Your task to perform on an android device: Open wifi settings Image 0: 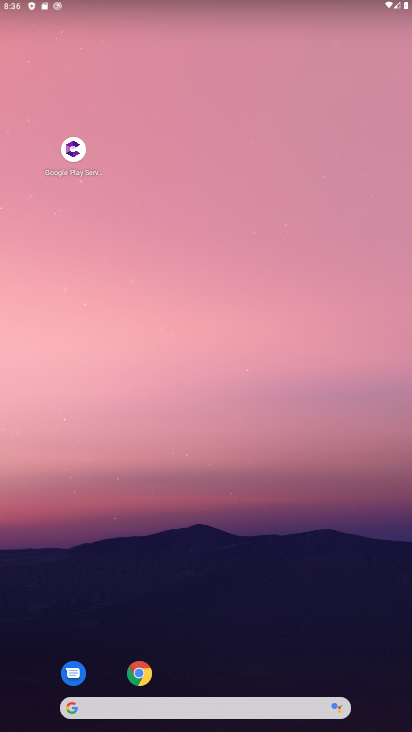
Step 0: drag from (357, 4) to (345, 382)
Your task to perform on an android device: Open wifi settings Image 1: 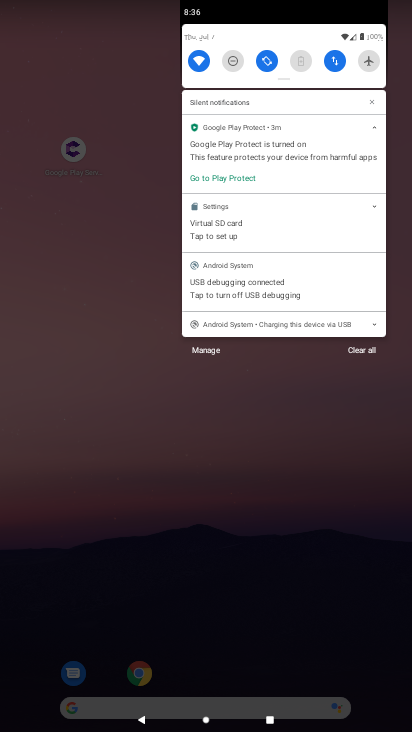
Step 1: click (202, 59)
Your task to perform on an android device: Open wifi settings Image 2: 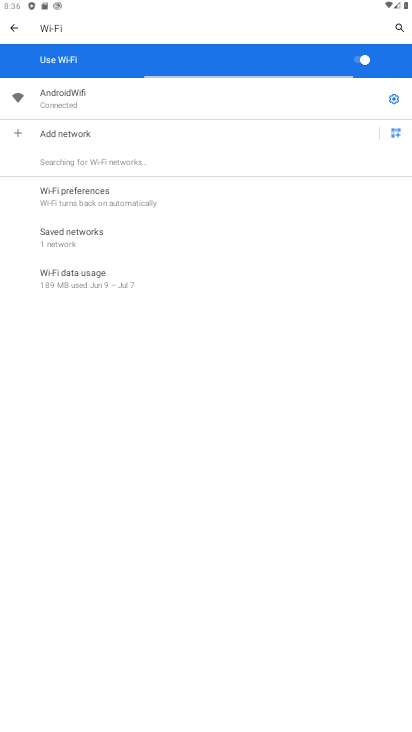
Step 2: task complete